Your task to perform on an android device: install app "Etsy: Buy & Sell Unique Items" Image 0: 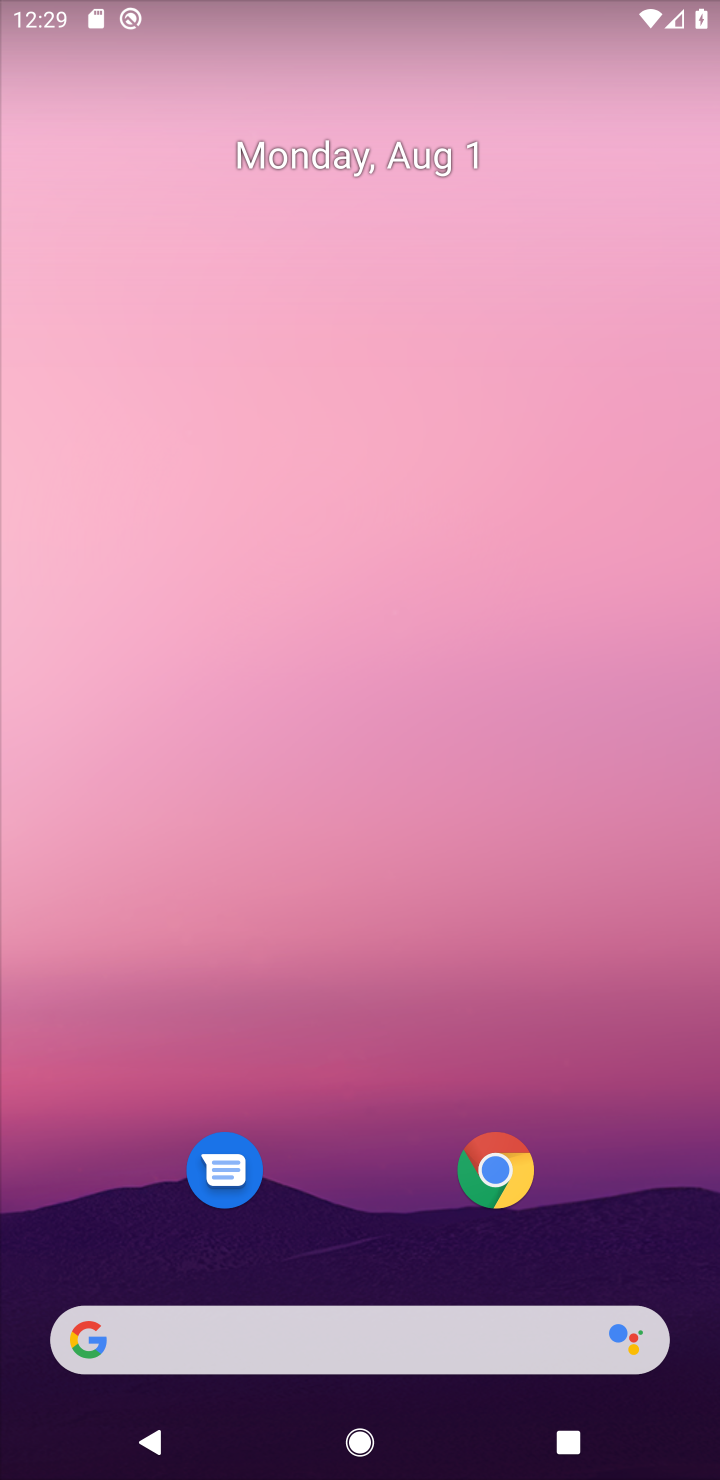
Step 0: drag from (682, 1217) to (419, 52)
Your task to perform on an android device: install app "Etsy: Buy & Sell Unique Items" Image 1: 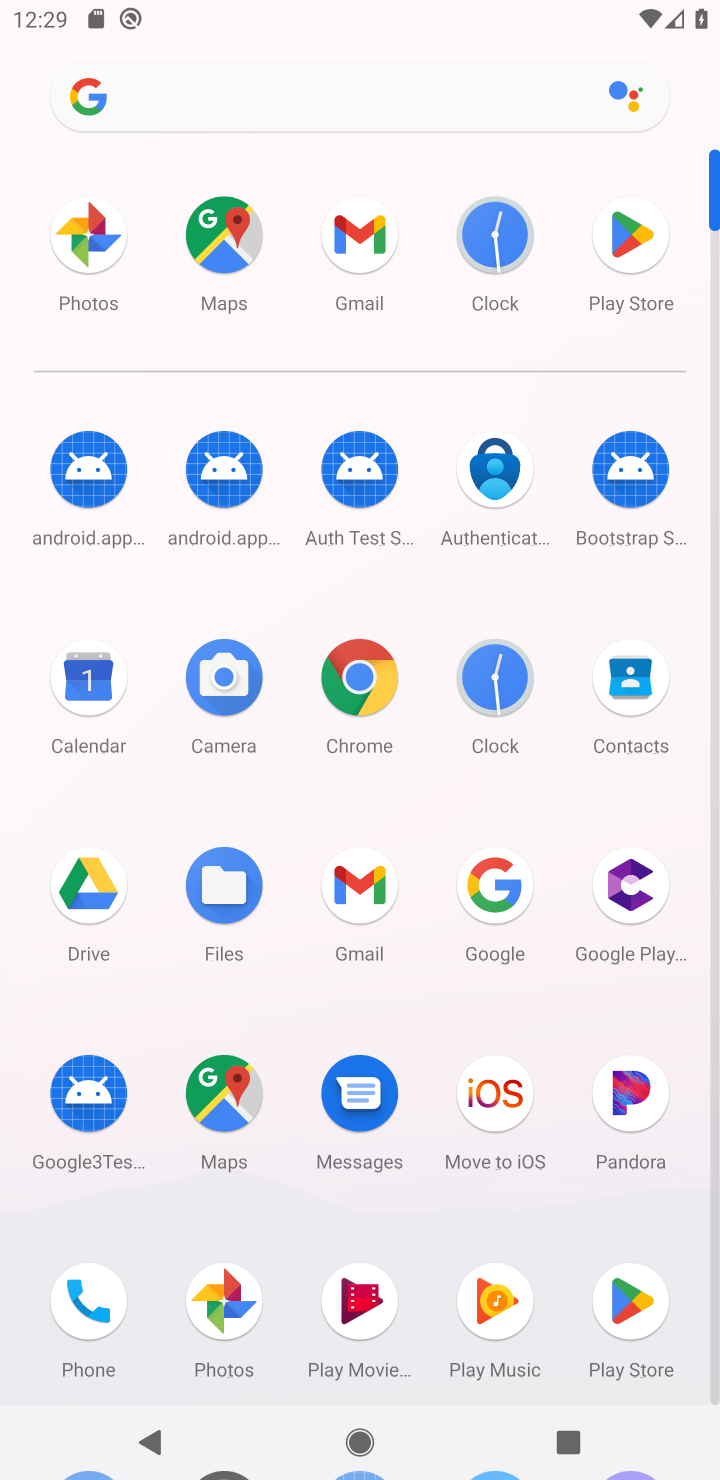
Step 1: click (616, 252)
Your task to perform on an android device: install app "Etsy: Buy & Sell Unique Items" Image 2: 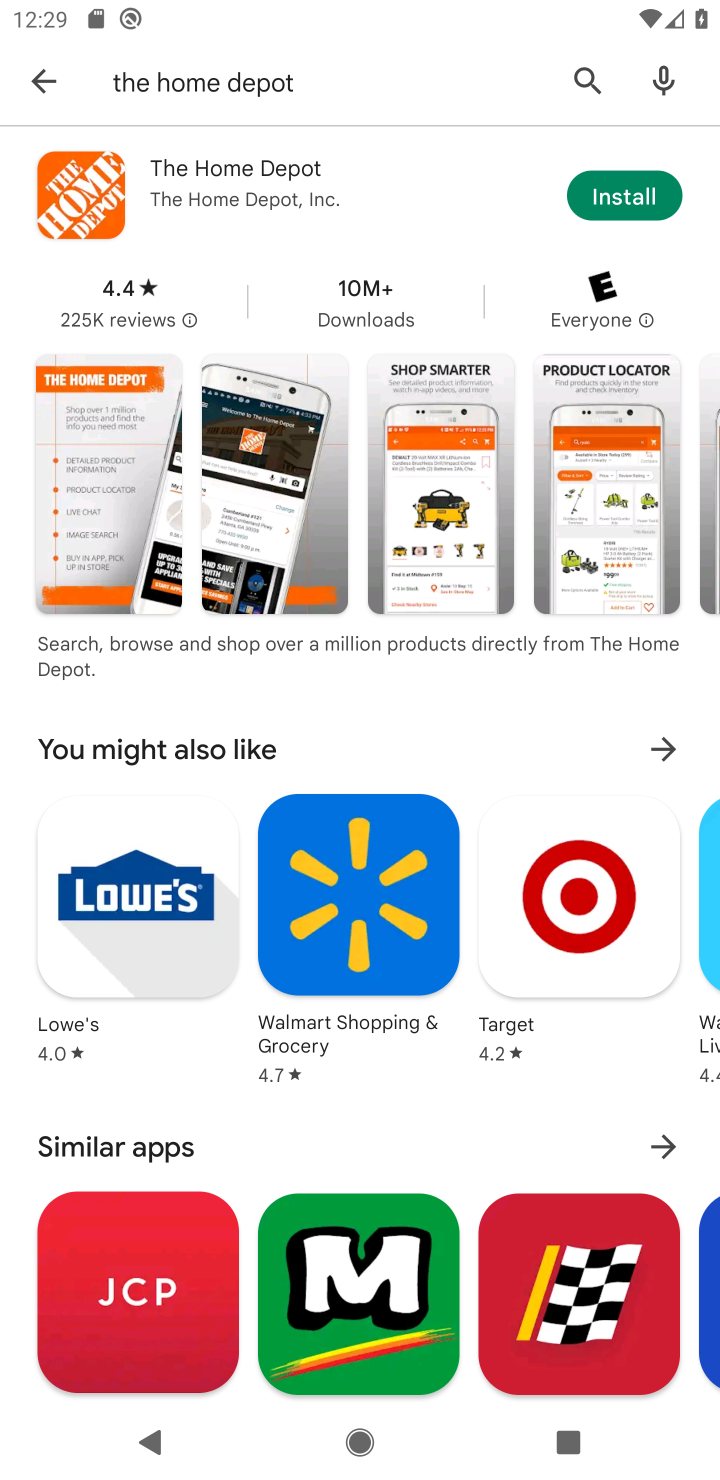
Step 2: press back button
Your task to perform on an android device: install app "Etsy: Buy & Sell Unique Items" Image 3: 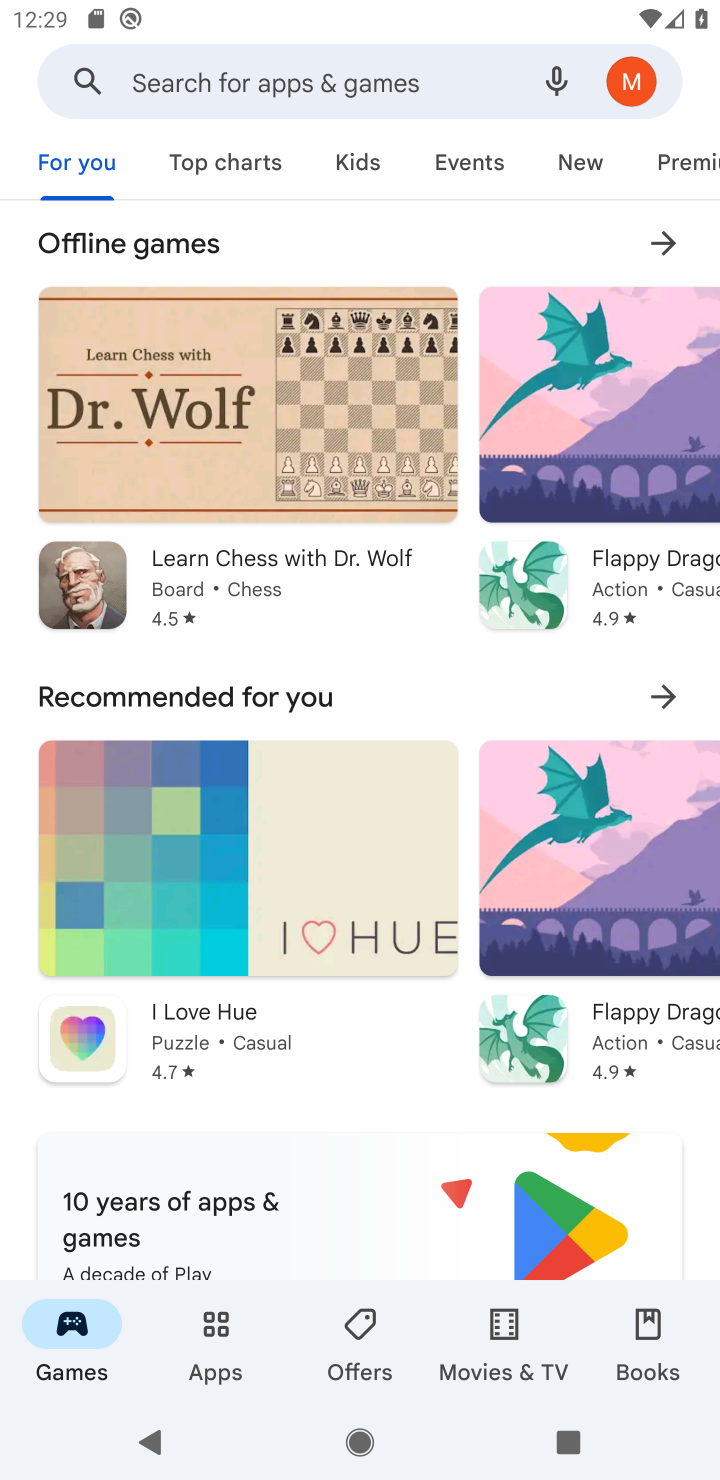
Step 3: click (212, 90)
Your task to perform on an android device: install app "Etsy: Buy & Sell Unique Items" Image 4: 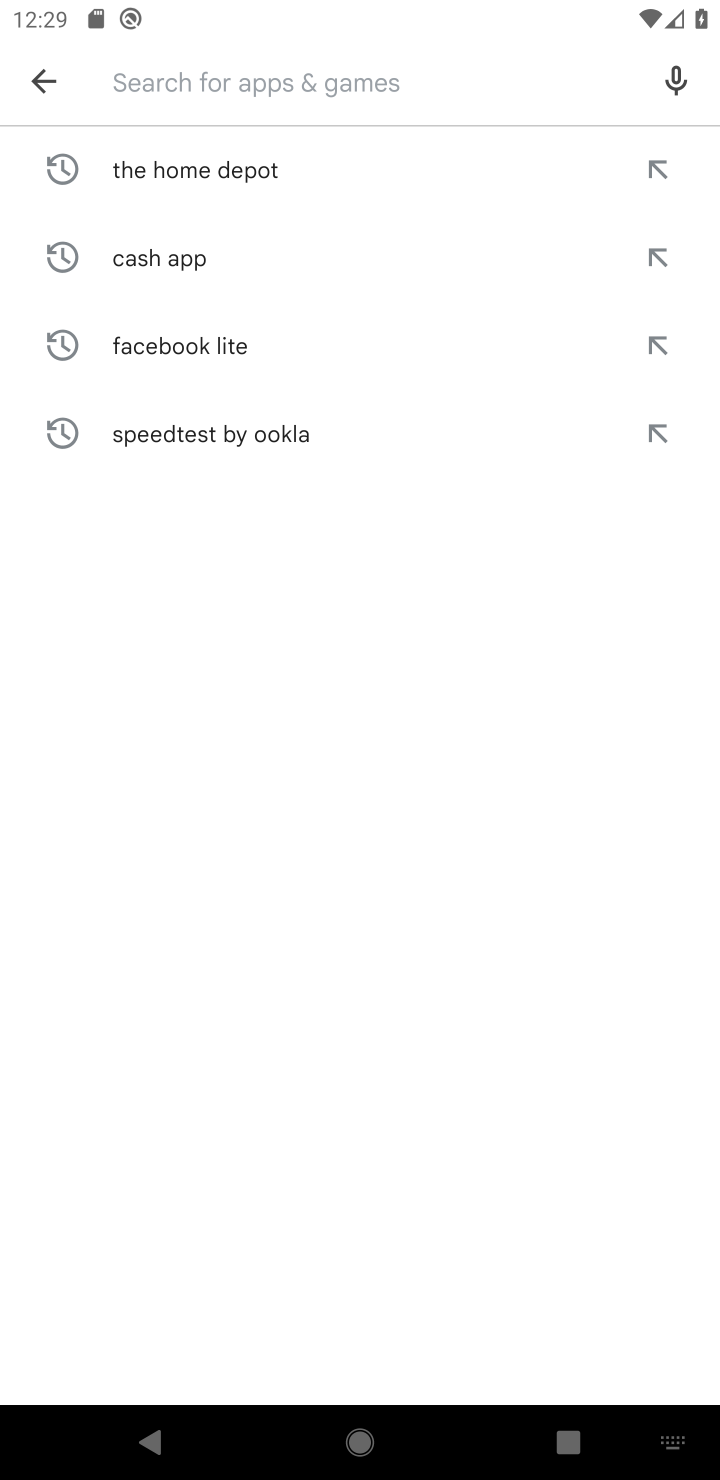
Step 4: type "Etsy: Buy & Sell Unique Items"
Your task to perform on an android device: install app "Etsy: Buy & Sell Unique Items" Image 5: 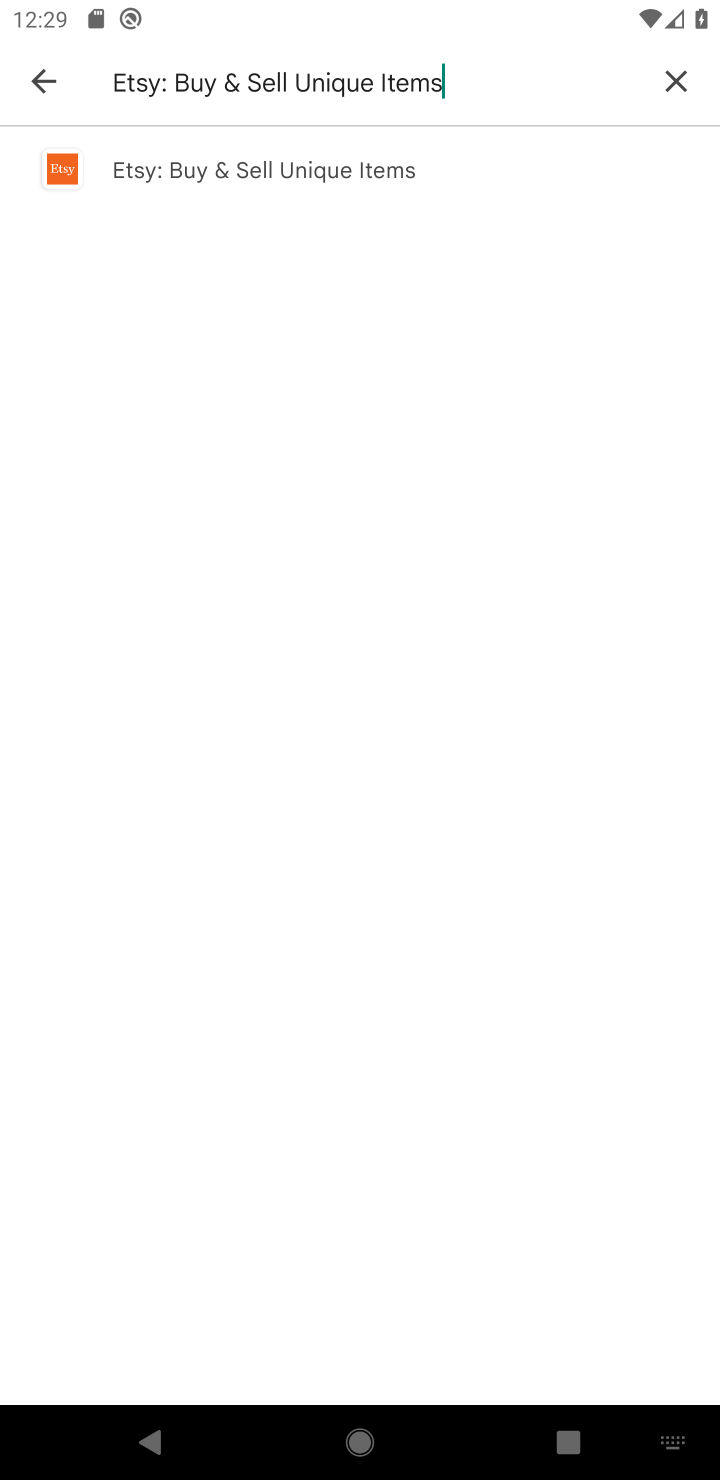
Step 5: click (197, 175)
Your task to perform on an android device: install app "Etsy: Buy & Sell Unique Items" Image 6: 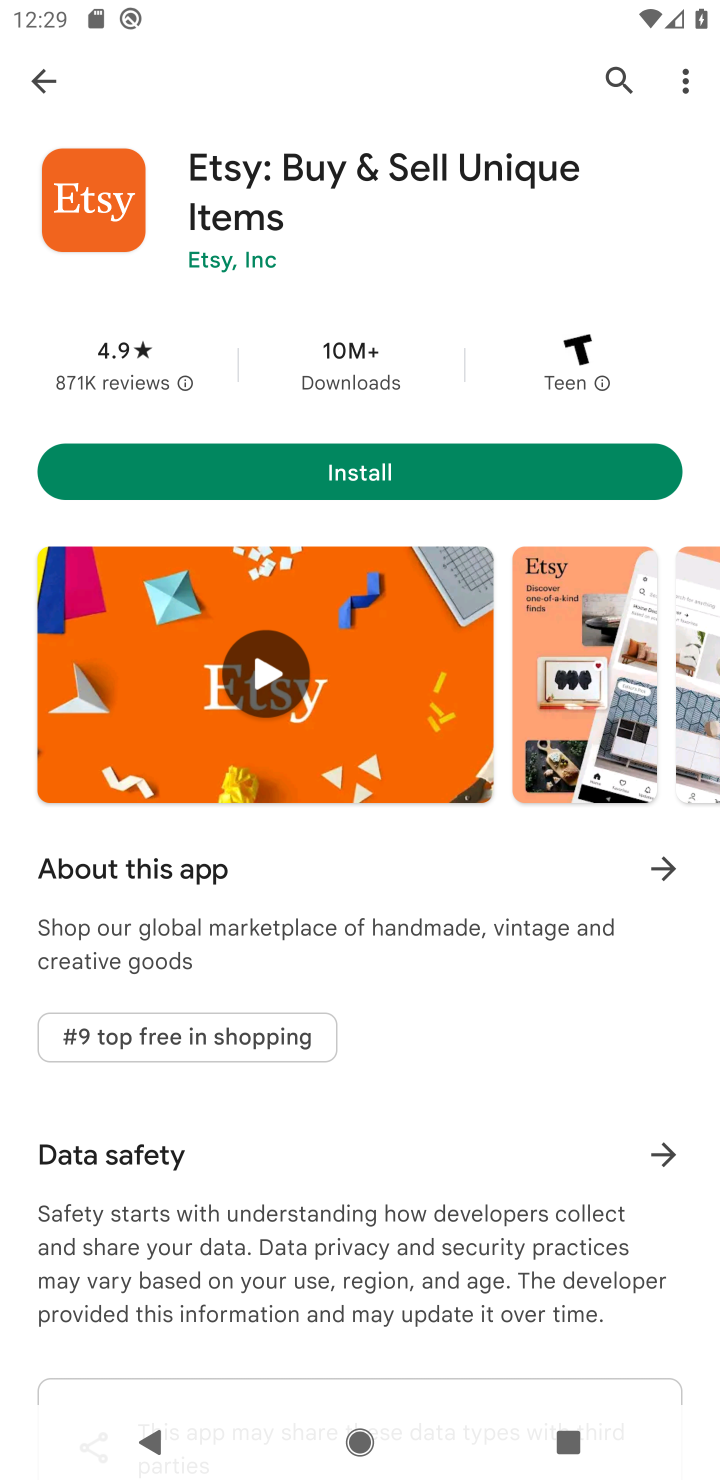
Step 6: click (431, 480)
Your task to perform on an android device: install app "Etsy: Buy & Sell Unique Items" Image 7: 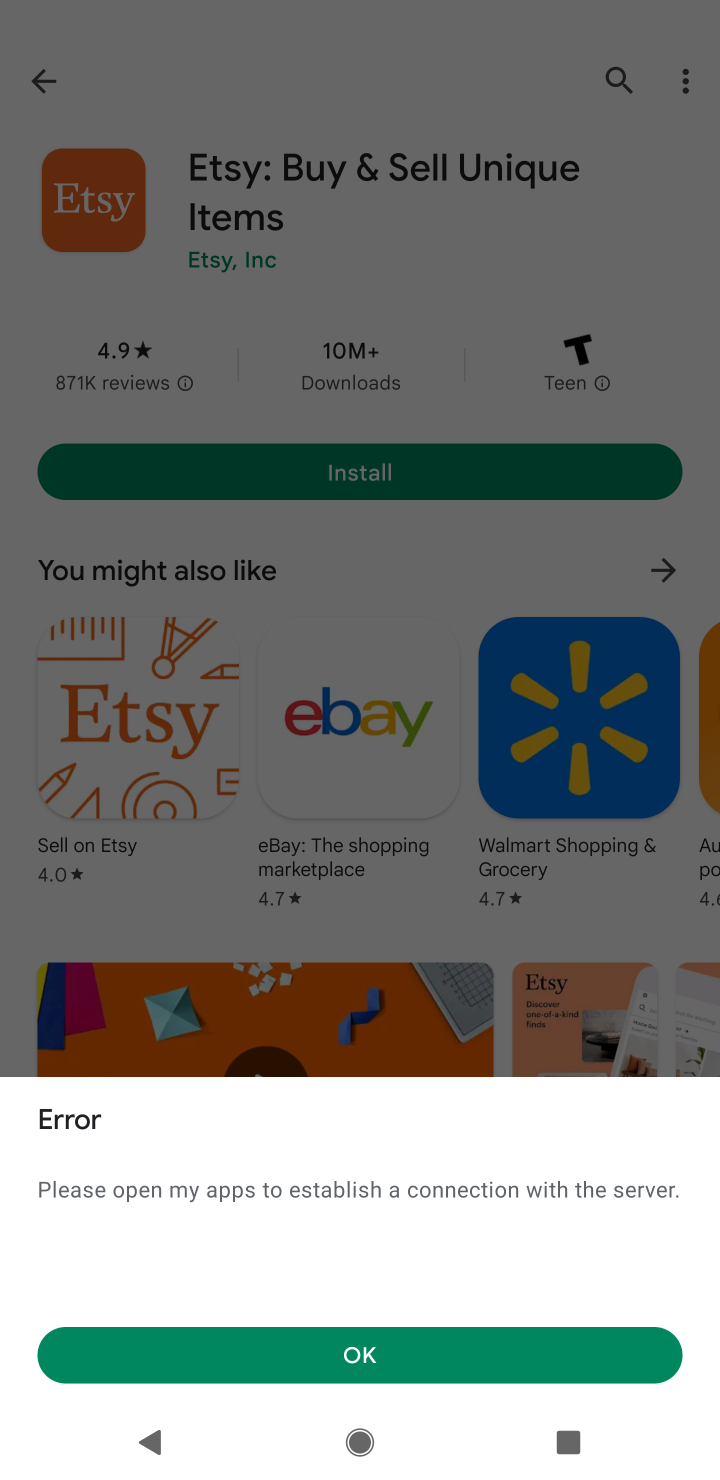
Step 7: task complete